Your task to perform on an android device: When is my next appointment? Image 0: 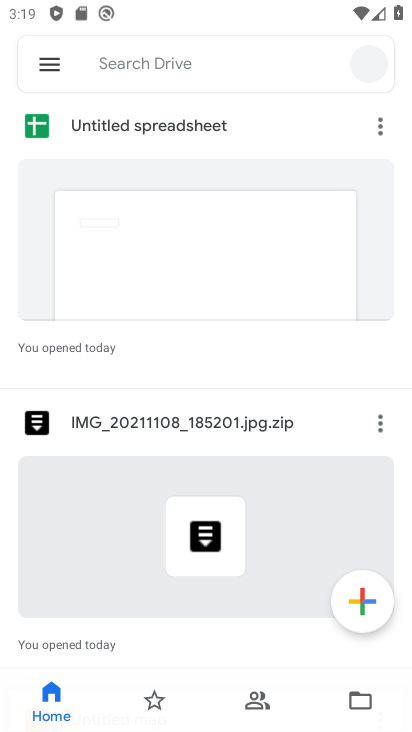
Step 0: press home button
Your task to perform on an android device: When is my next appointment? Image 1: 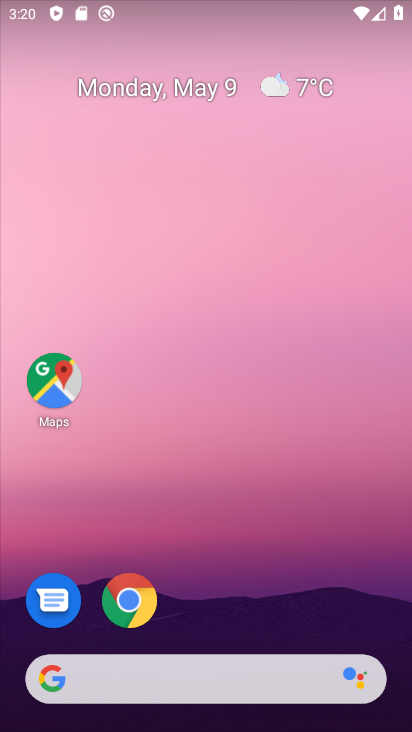
Step 1: drag from (247, 515) to (240, 53)
Your task to perform on an android device: When is my next appointment? Image 2: 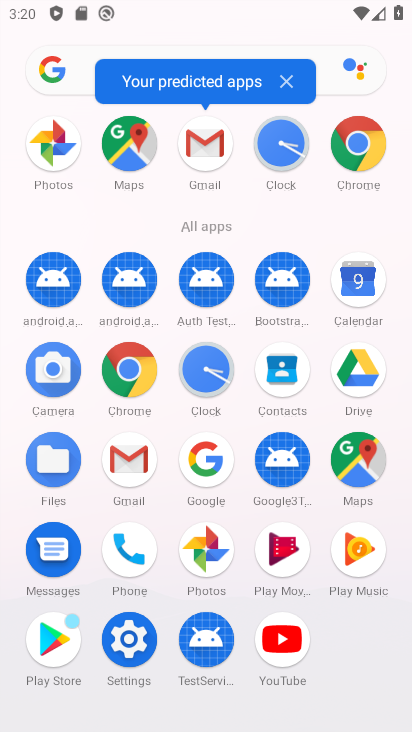
Step 2: click (356, 286)
Your task to perform on an android device: When is my next appointment? Image 3: 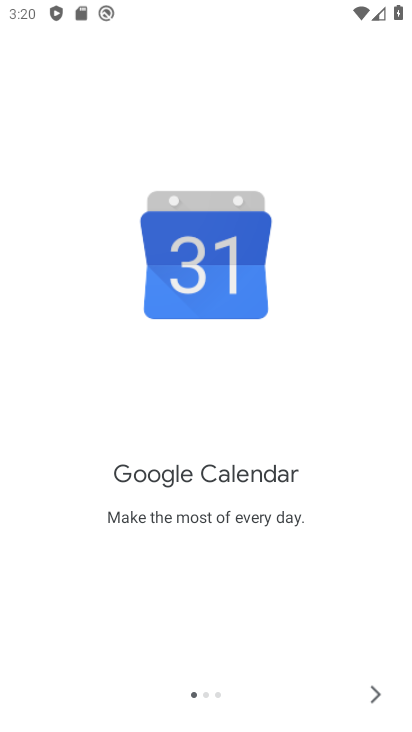
Step 3: click (385, 709)
Your task to perform on an android device: When is my next appointment? Image 4: 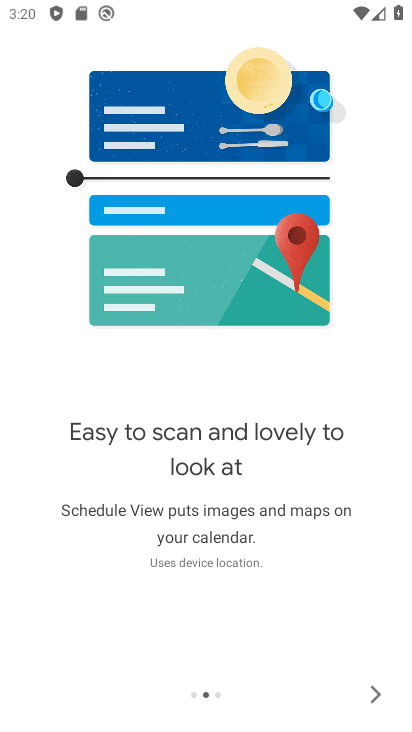
Step 4: click (380, 692)
Your task to perform on an android device: When is my next appointment? Image 5: 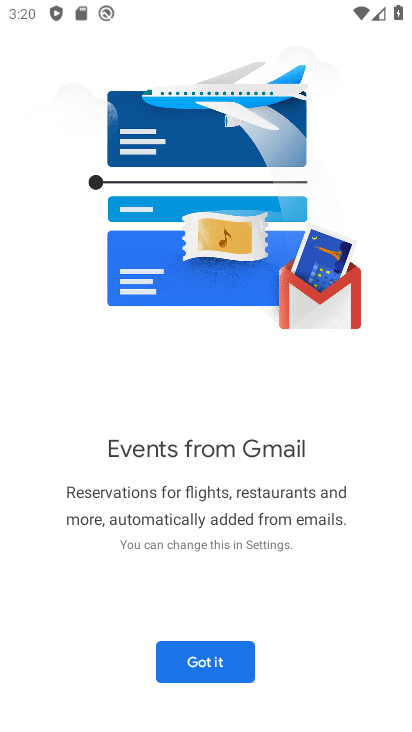
Step 5: click (208, 676)
Your task to perform on an android device: When is my next appointment? Image 6: 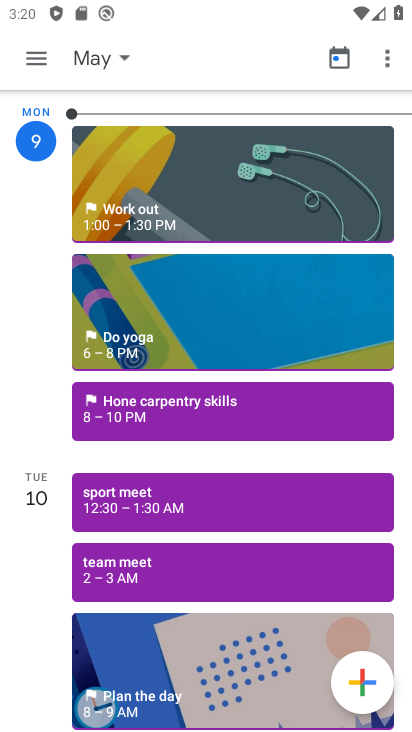
Step 6: task complete